Your task to perform on an android device: refresh tabs in the chrome app Image 0: 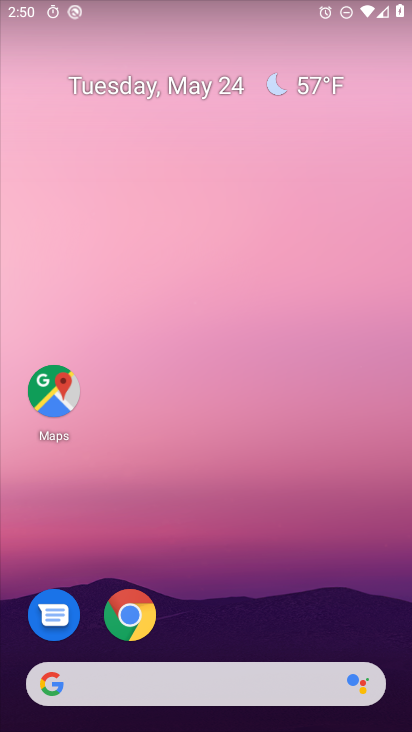
Step 0: click (141, 621)
Your task to perform on an android device: refresh tabs in the chrome app Image 1: 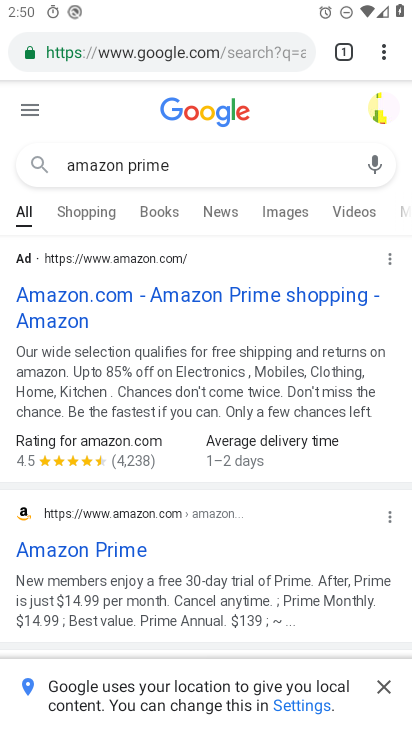
Step 1: click (387, 51)
Your task to perform on an android device: refresh tabs in the chrome app Image 2: 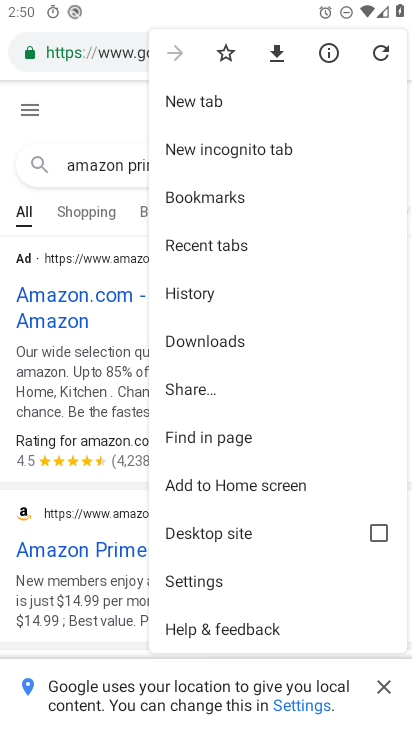
Step 2: click (377, 58)
Your task to perform on an android device: refresh tabs in the chrome app Image 3: 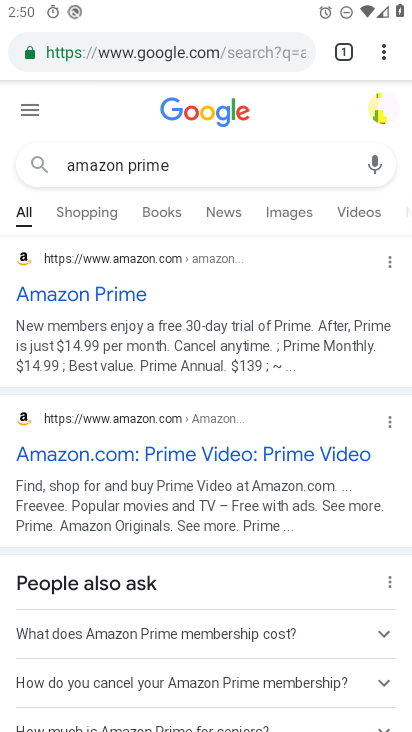
Step 3: task complete